Your task to perform on an android device: uninstall "Google Photos" Image 0: 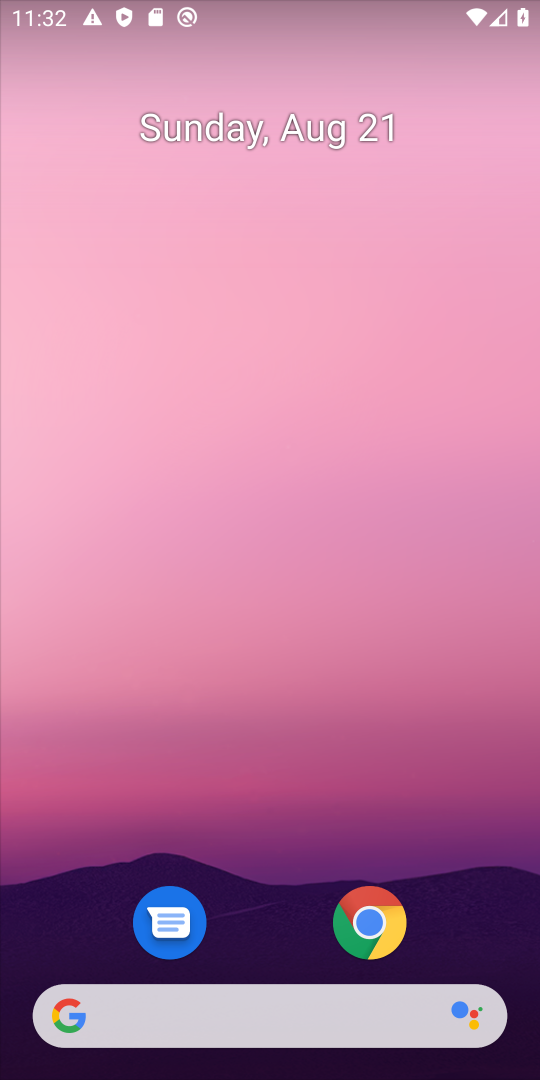
Step 0: drag from (276, 957) to (244, 161)
Your task to perform on an android device: uninstall "Google Photos" Image 1: 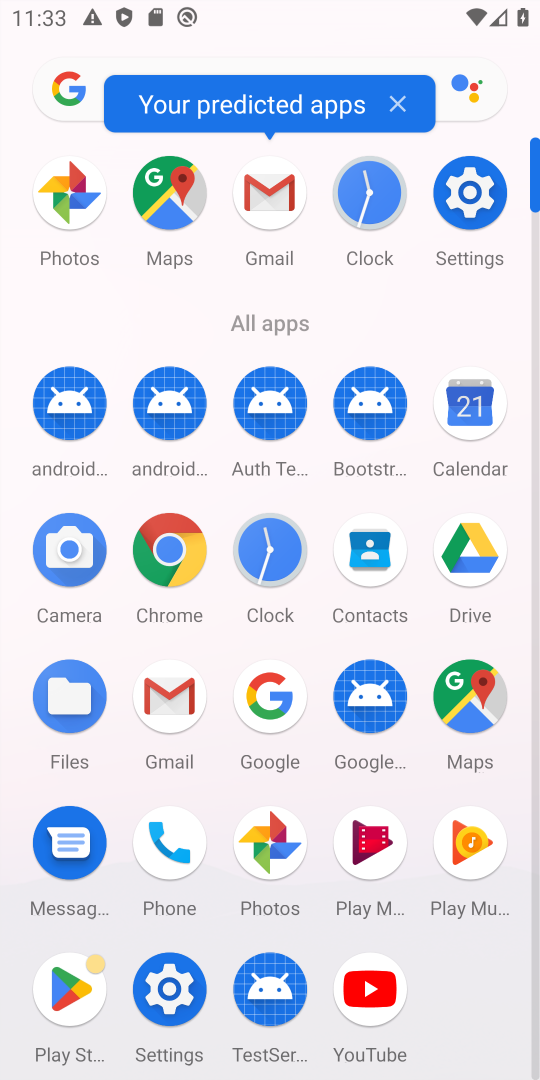
Step 1: click (271, 831)
Your task to perform on an android device: uninstall "Google Photos" Image 2: 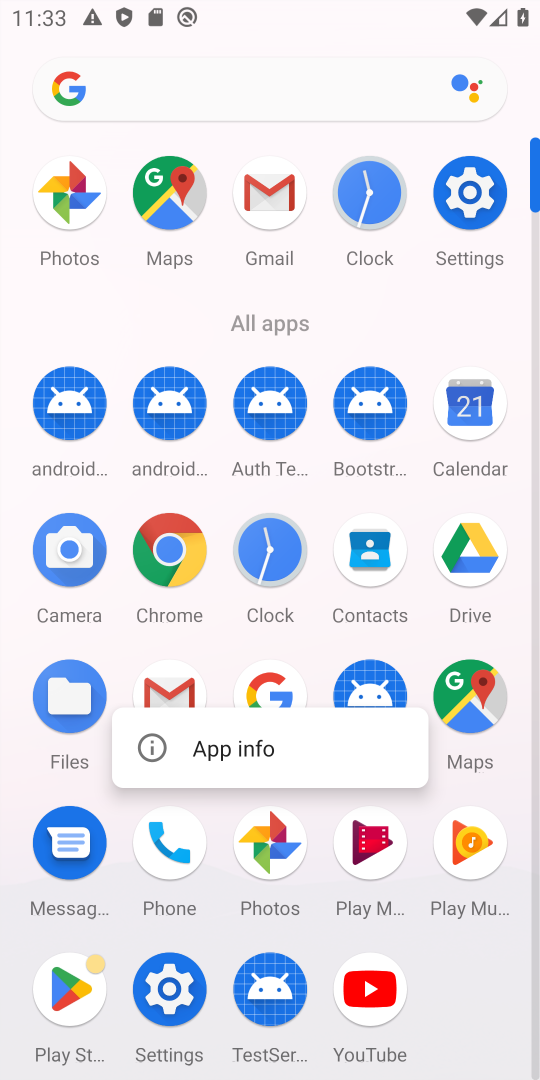
Step 2: click (152, 748)
Your task to perform on an android device: uninstall "Google Photos" Image 3: 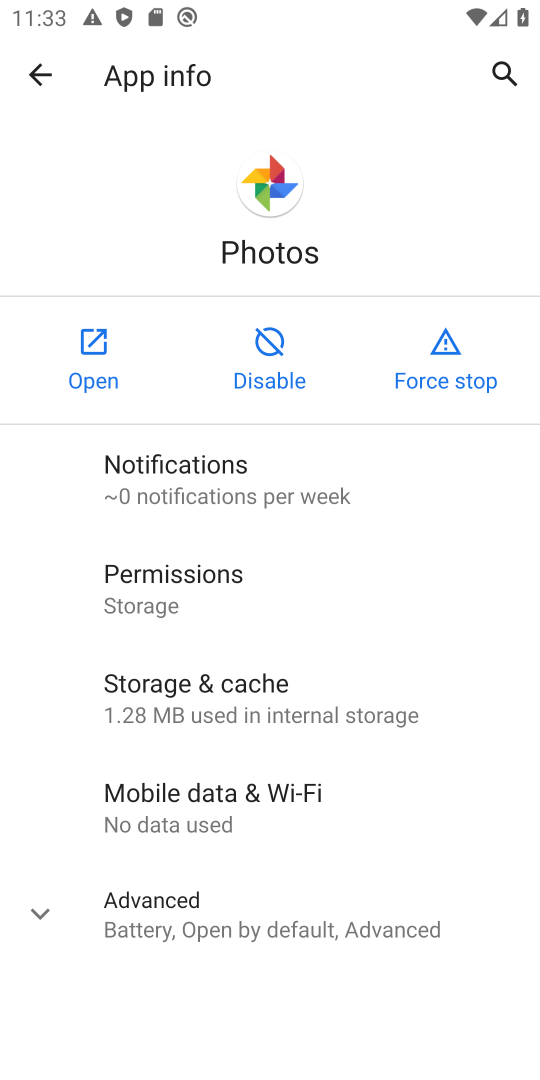
Step 3: task complete